Your task to perform on an android device: toggle airplane mode Image 0: 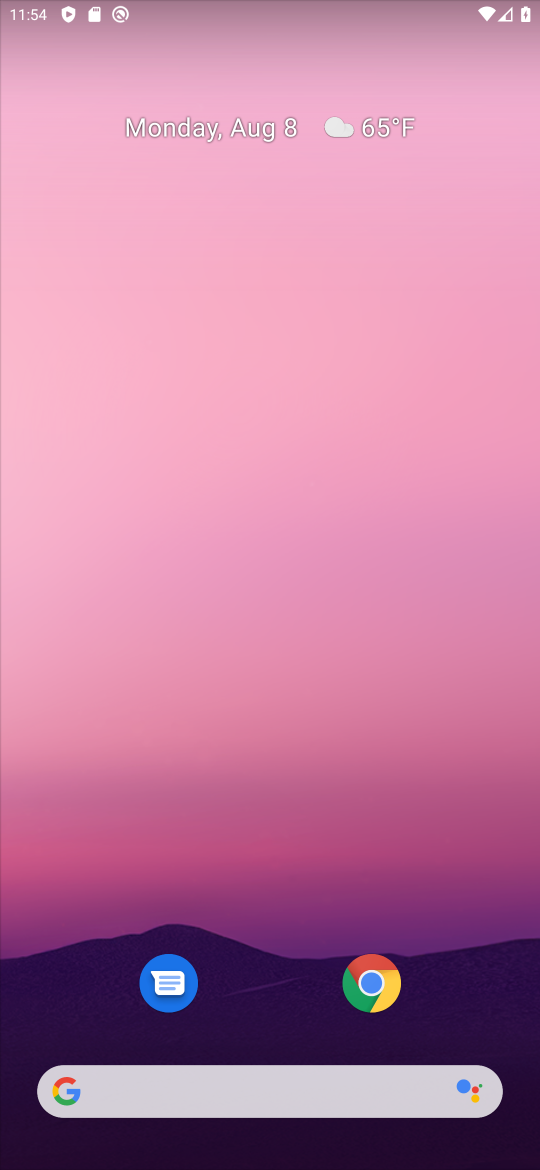
Step 0: drag from (327, 1045) to (302, 347)
Your task to perform on an android device: toggle airplane mode Image 1: 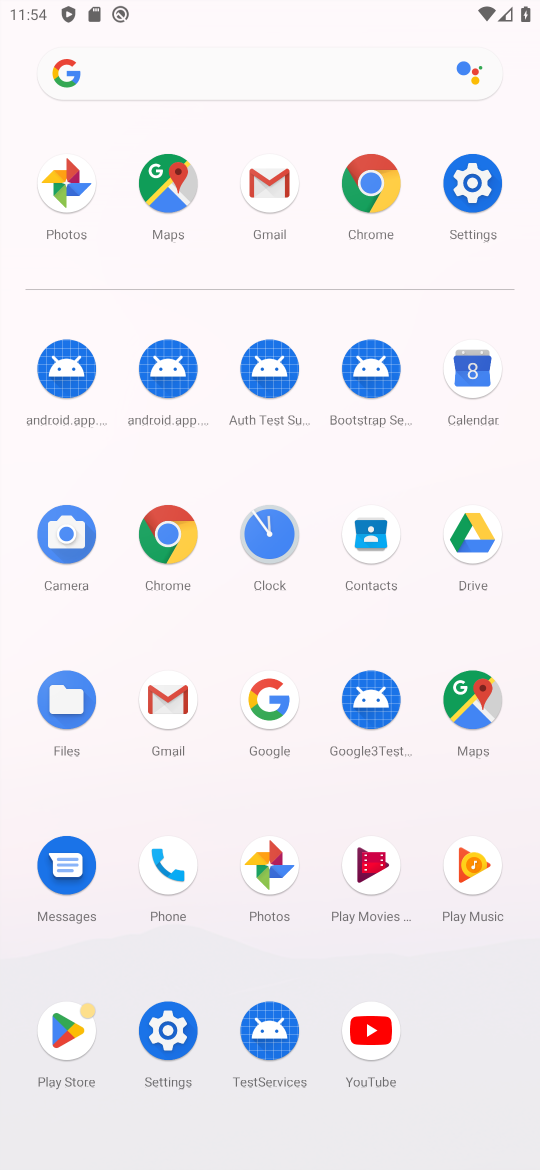
Step 1: task complete